Your task to perform on an android device: Show the shopping cart on target.com. Add dell xps to the cart on target.com, then select checkout. Image 0: 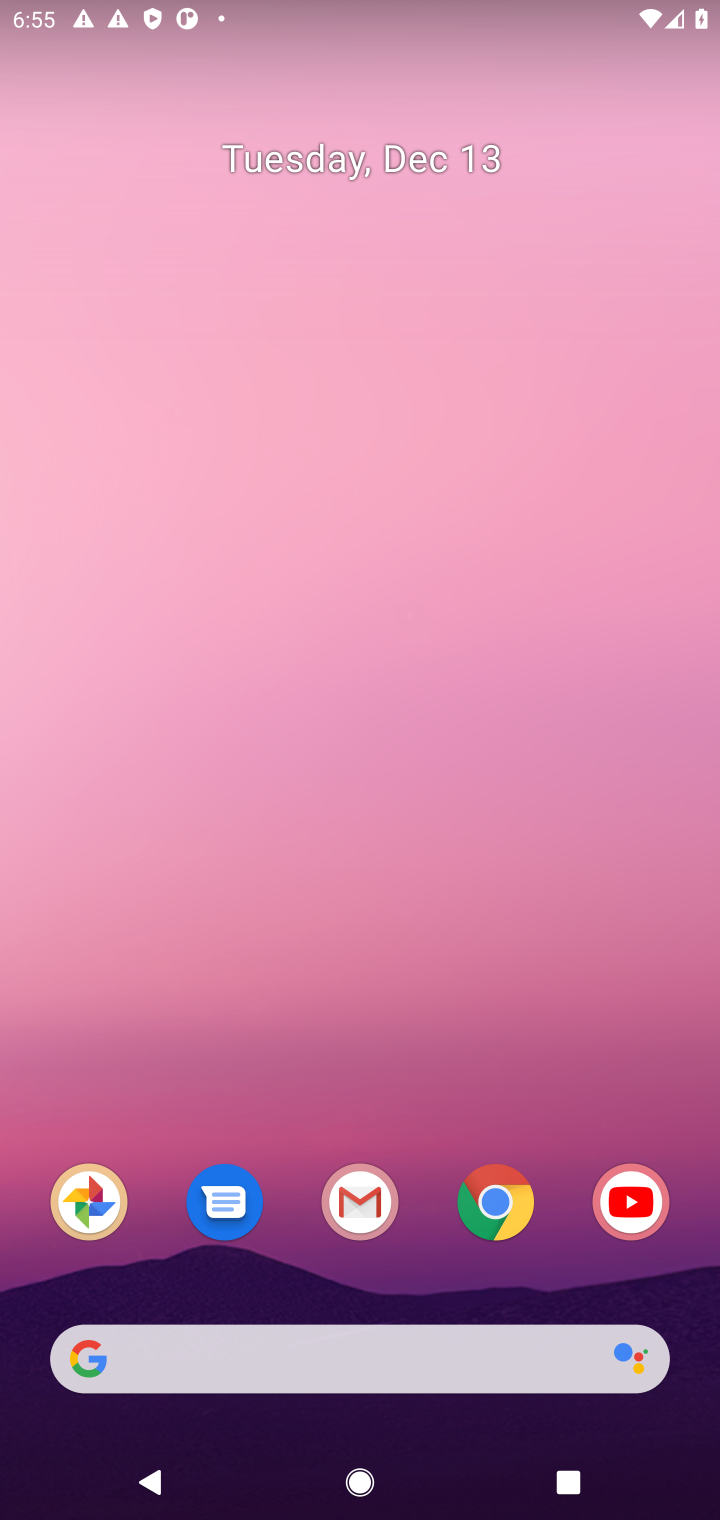
Step 0: click (494, 1205)
Your task to perform on an android device: Show the shopping cart on target.com. Add dell xps to the cart on target.com, then select checkout. Image 1: 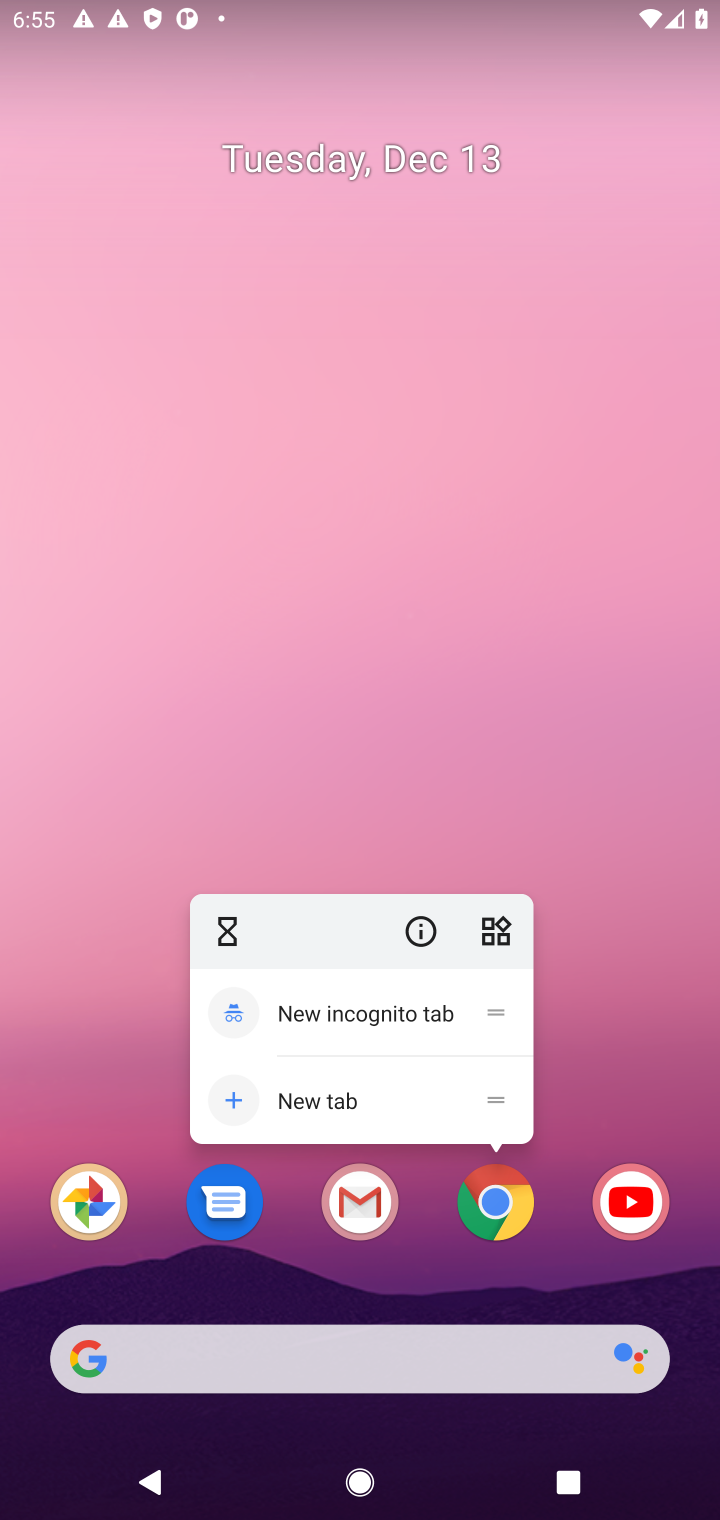
Step 1: click (498, 1212)
Your task to perform on an android device: Show the shopping cart on target.com. Add dell xps to the cart on target.com, then select checkout. Image 2: 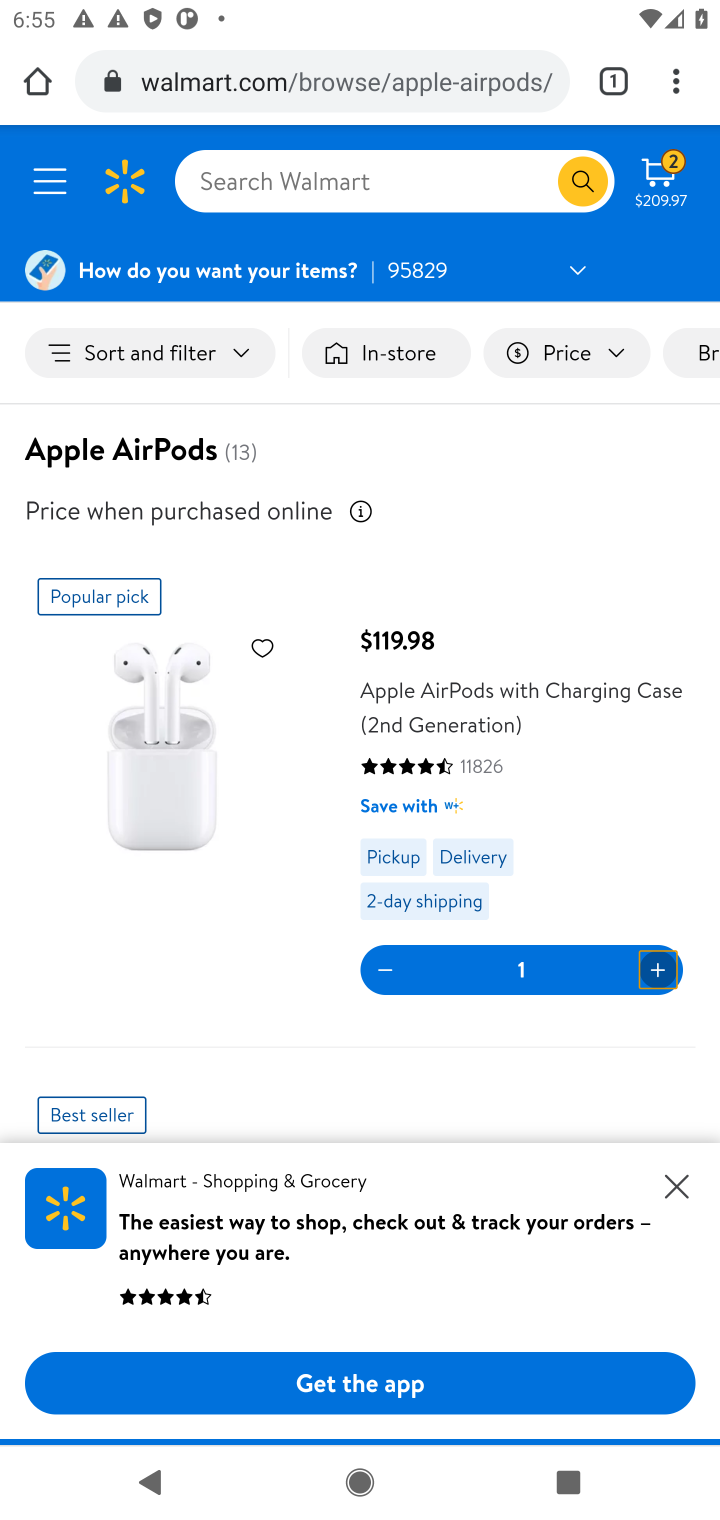
Step 2: click (264, 83)
Your task to perform on an android device: Show the shopping cart on target.com. Add dell xps to the cart on target.com, then select checkout. Image 3: 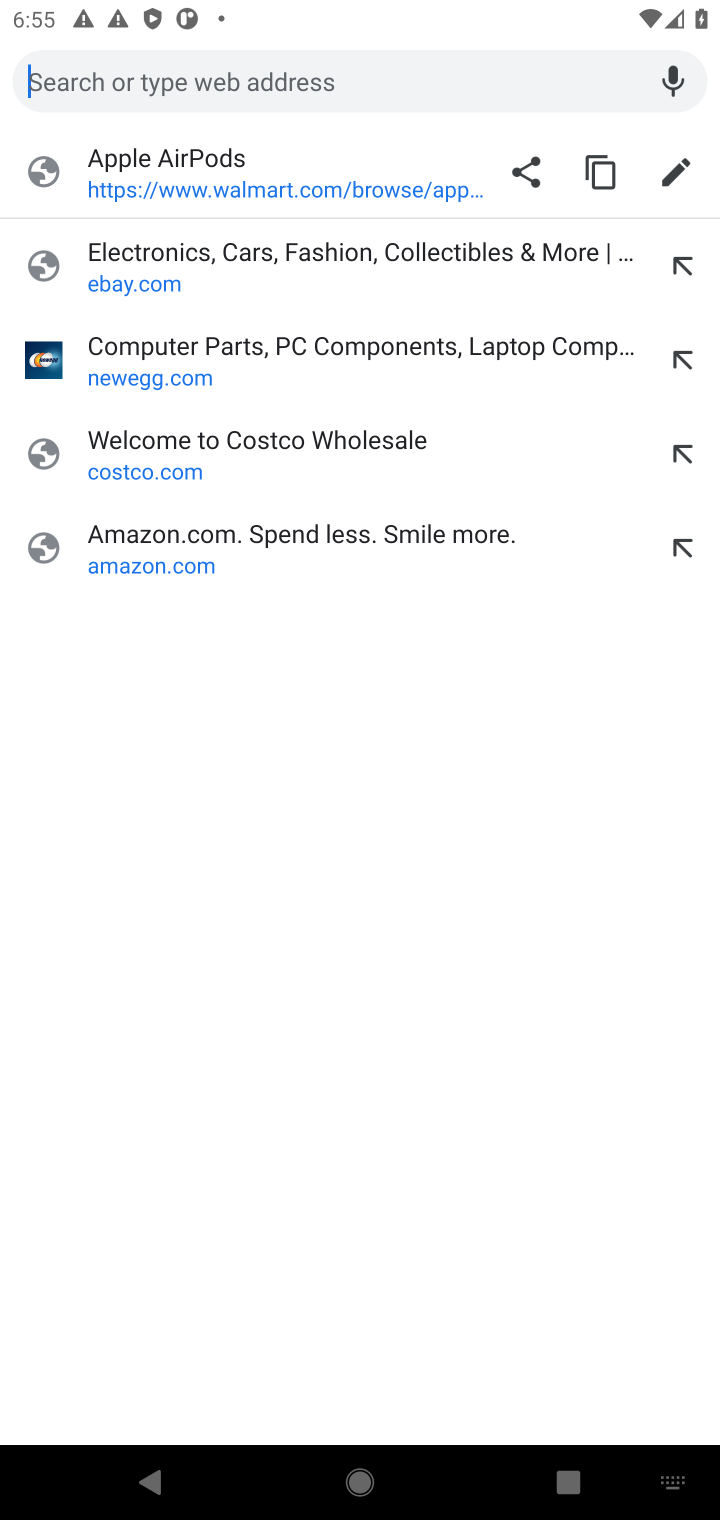
Step 3: type "target.com"
Your task to perform on an android device: Show the shopping cart on target.com. Add dell xps to the cart on target.com, then select checkout. Image 4: 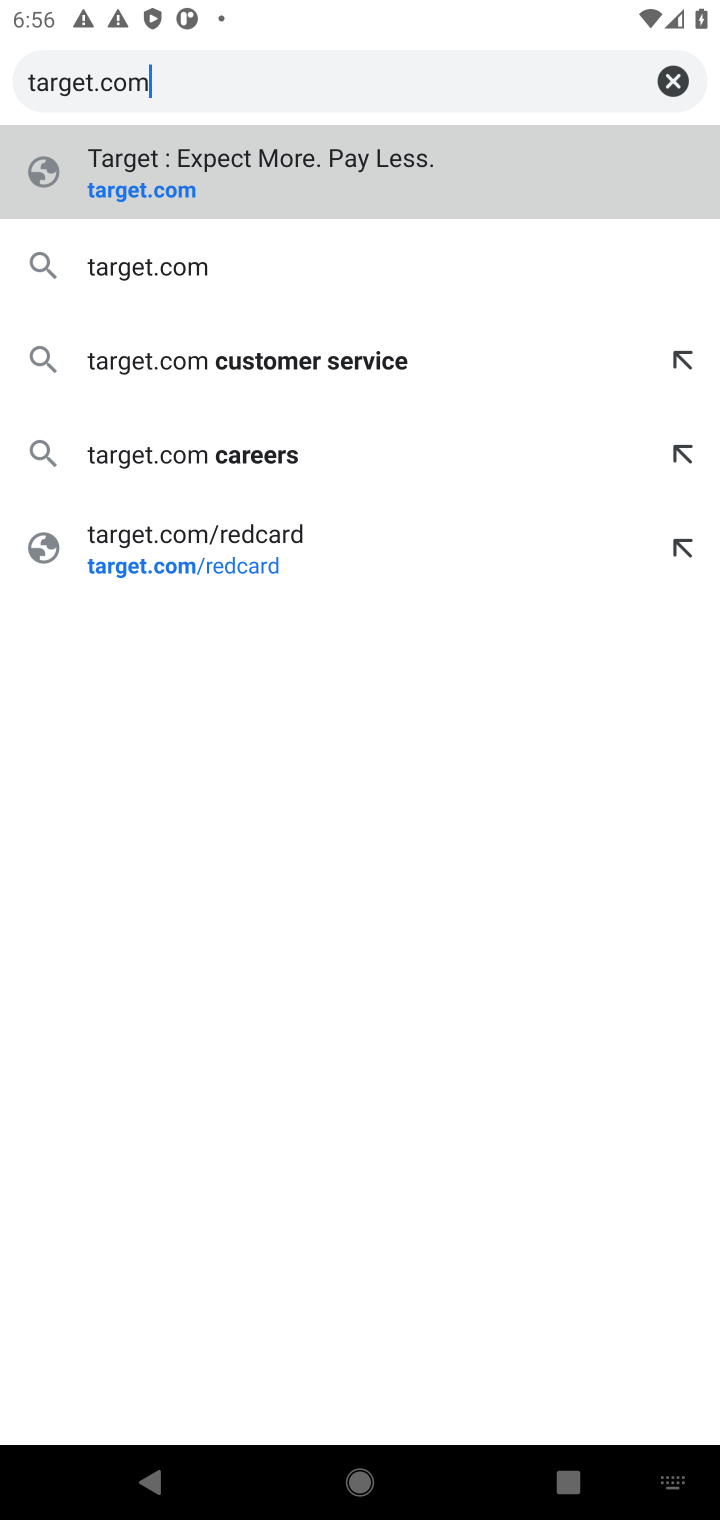
Step 4: click (138, 177)
Your task to perform on an android device: Show the shopping cart on target.com. Add dell xps to the cart on target.com, then select checkout. Image 5: 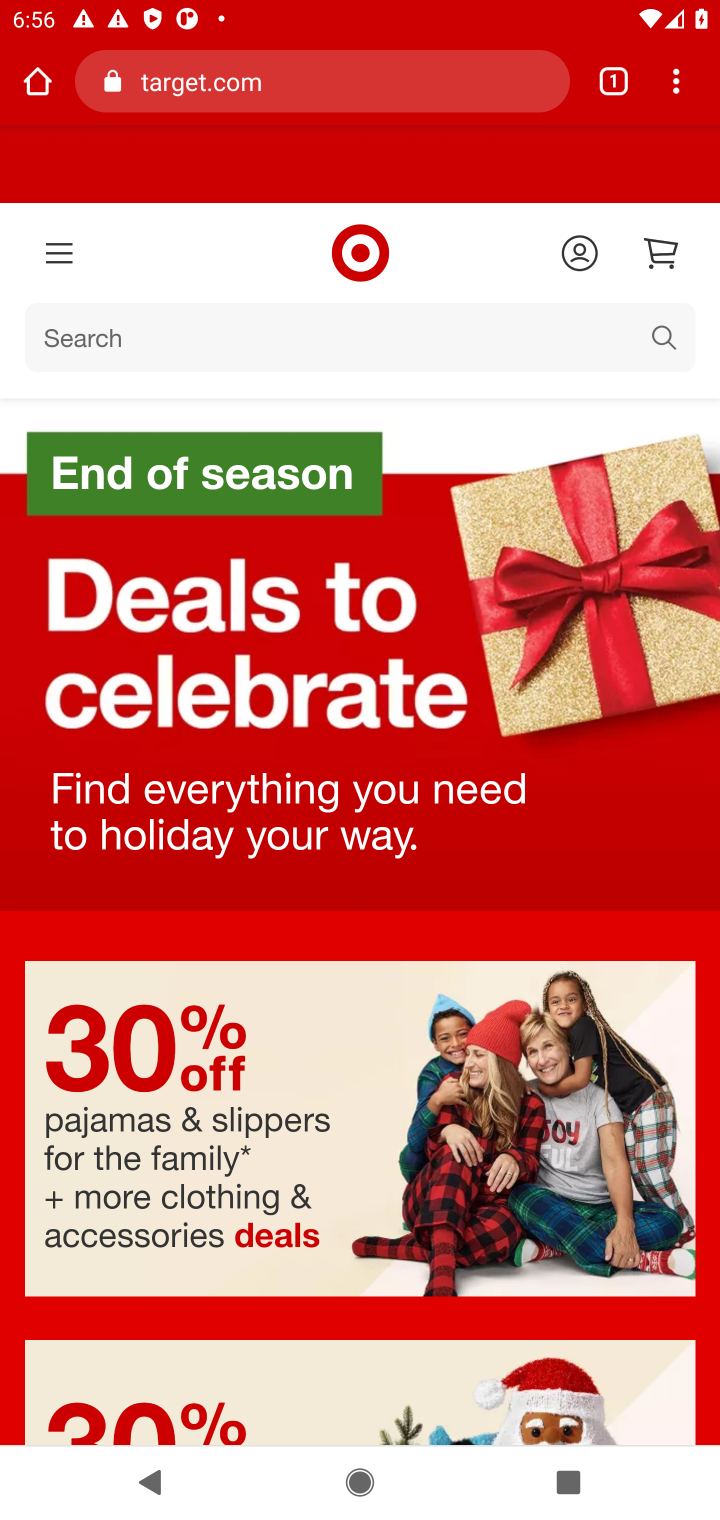
Step 5: click (655, 257)
Your task to perform on an android device: Show the shopping cart on target.com. Add dell xps to the cart on target.com, then select checkout. Image 6: 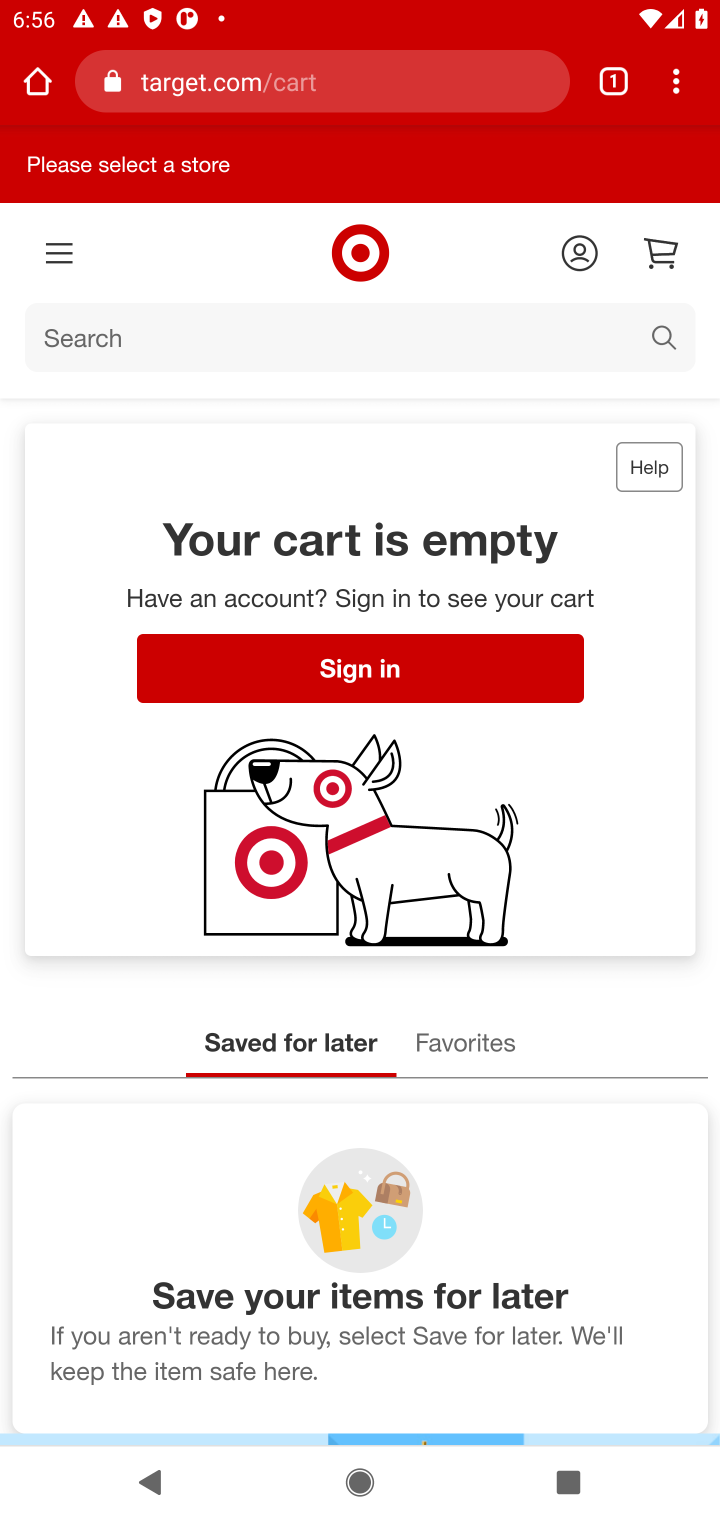
Step 6: click (81, 348)
Your task to perform on an android device: Show the shopping cart on target.com. Add dell xps to the cart on target.com, then select checkout. Image 7: 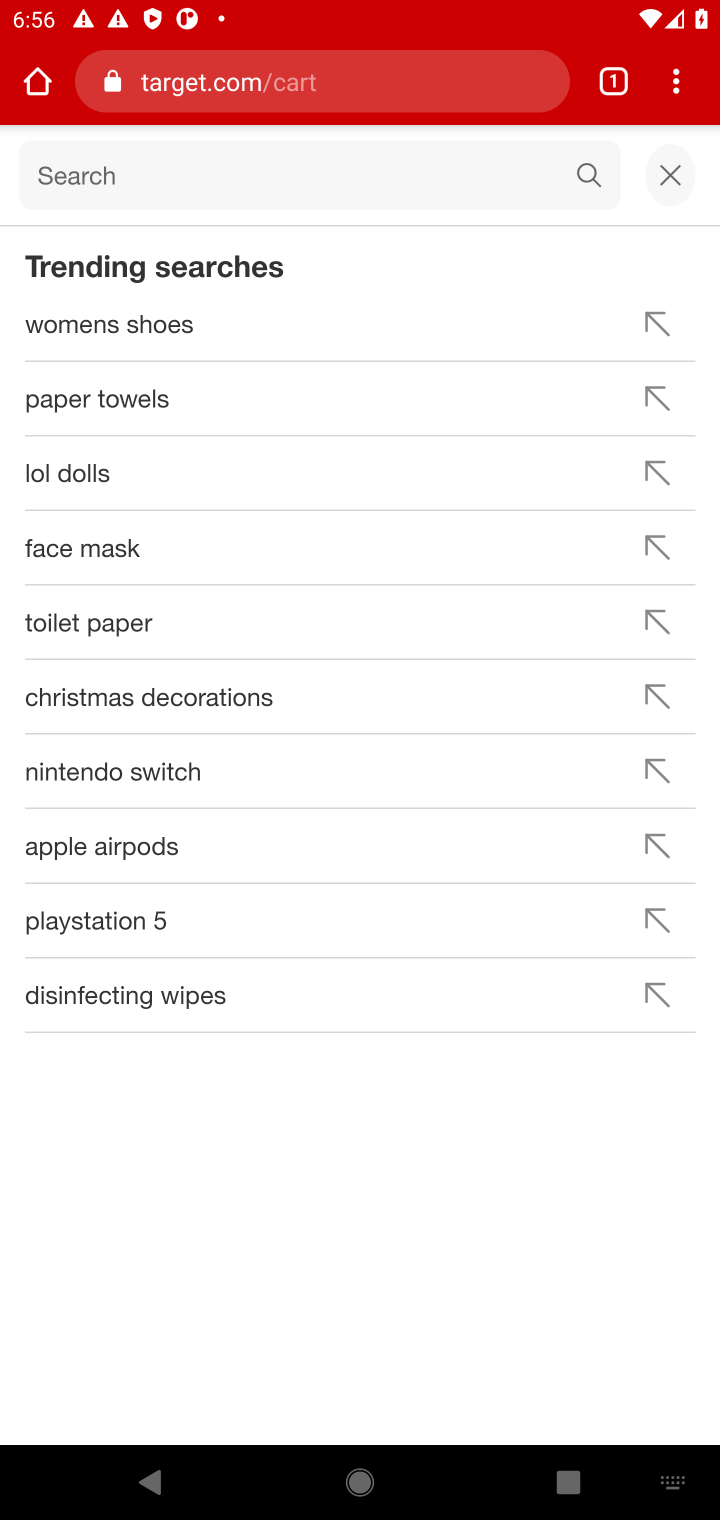
Step 7: type "dell xps"
Your task to perform on an android device: Show the shopping cart on target.com. Add dell xps to the cart on target.com, then select checkout. Image 8: 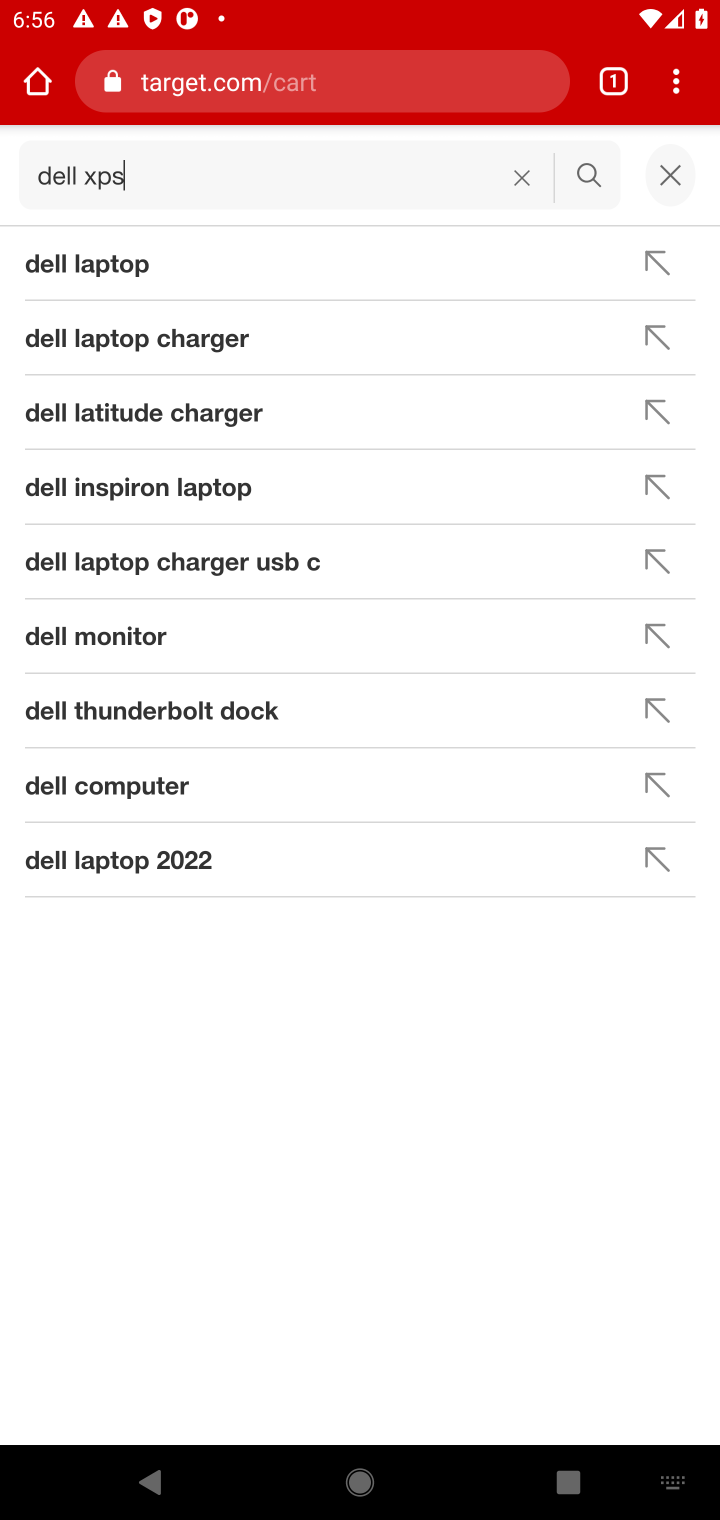
Step 8: click (582, 184)
Your task to perform on an android device: Show the shopping cart on target.com. Add dell xps to the cart on target.com, then select checkout. Image 9: 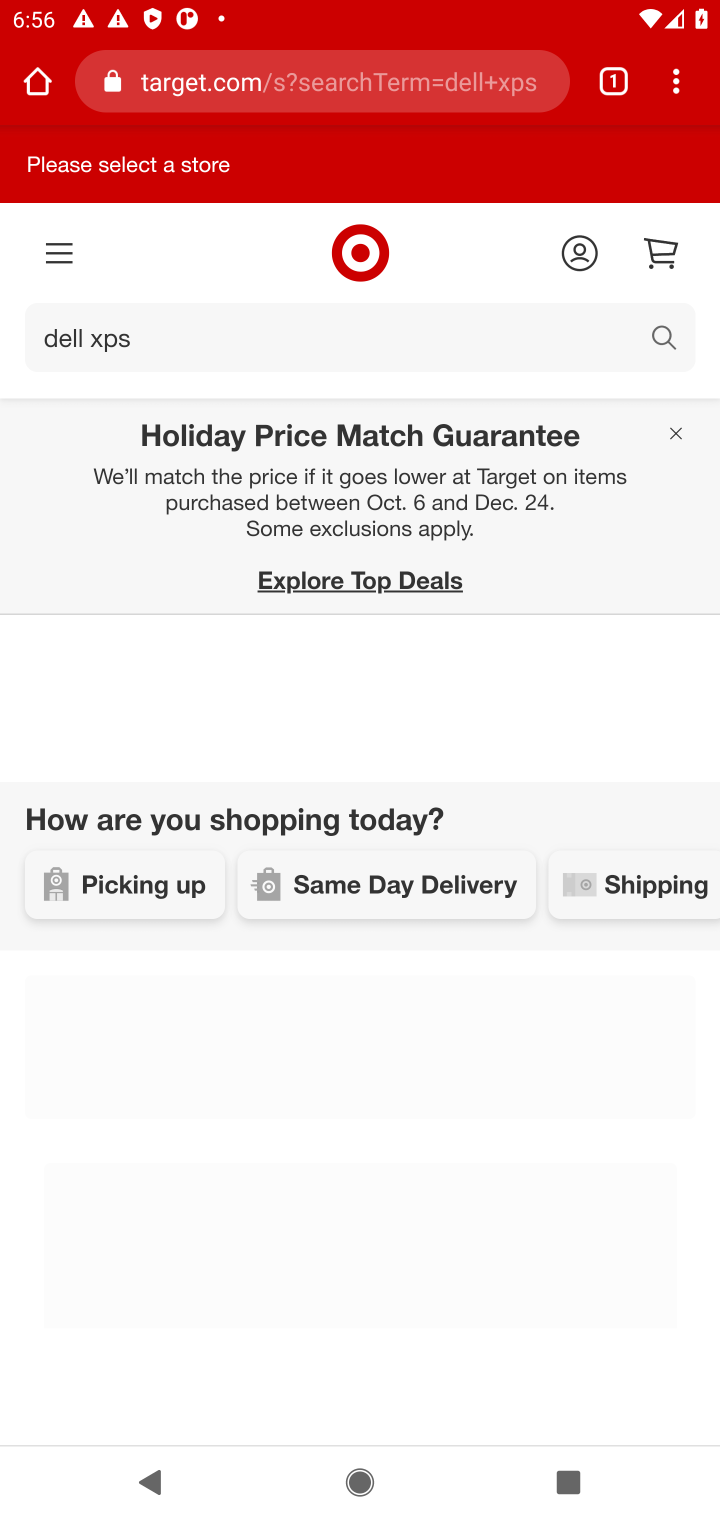
Step 9: task complete